Your task to perform on an android device: turn on airplane mode Image 0: 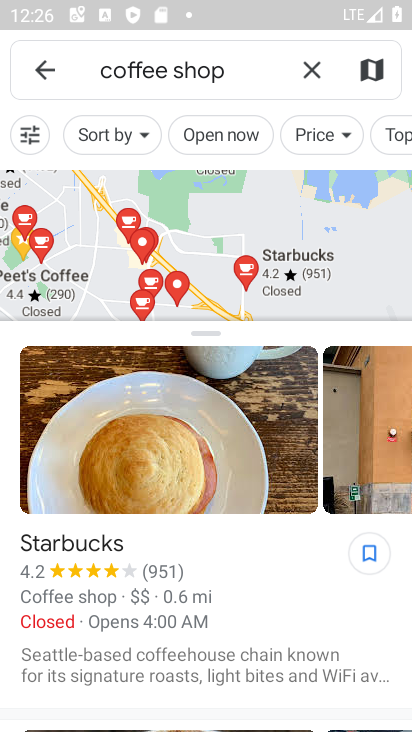
Step 0: drag from (224, 6) to (238, 580)
Your task to perform on an android device: turn on airplane mode Image 1: 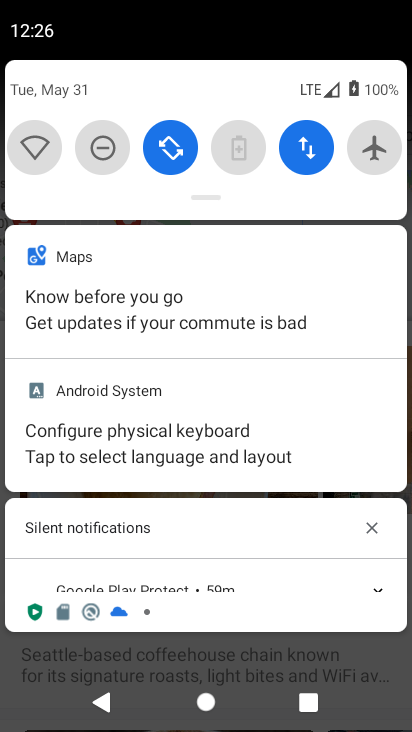
Step 1: click (382, 138)
Your task to perform on an android device: turn on airplane mode Image 2: 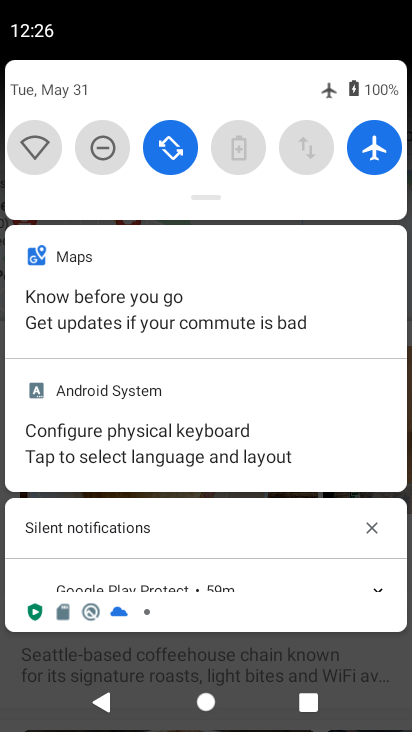
Step 2: task complete